Your task to perform on an android device: turn off wifi Image 0: 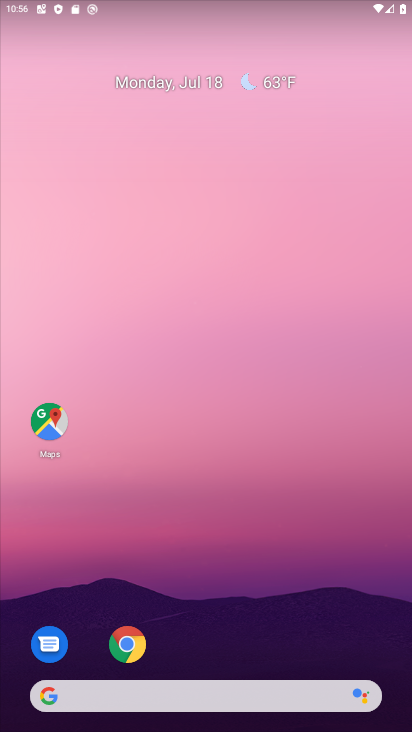
Step 0: drag from (290, 659) to (288, 88)
Your task to perform on an android device: turn off wifi Image 1: 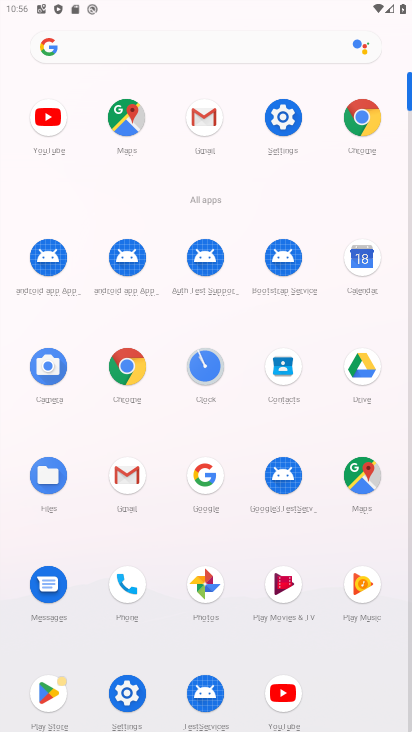
Step 1: click (289, 114)
Your task to perform on an android device: turn off wifi Image 2: 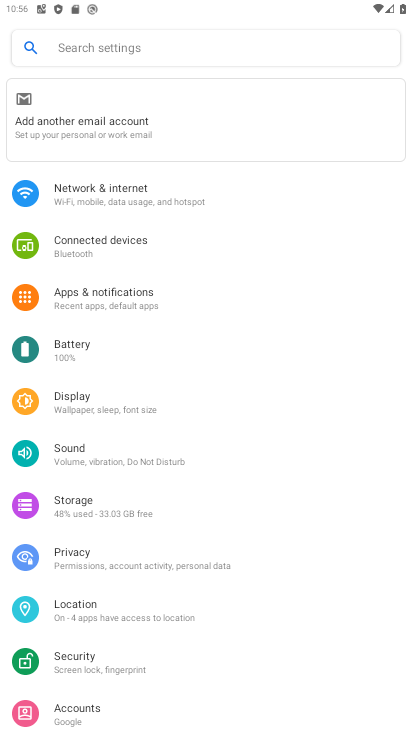
Step 2: click (99, 189)
Your task to perform on an android device: turn off wifi Image 3: 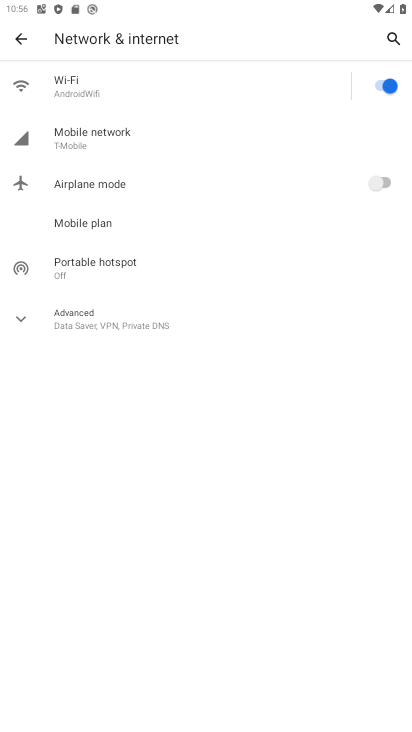
Step 3: click (391, 82)
Your task to perform on an android device: turn off wifi Image 4: 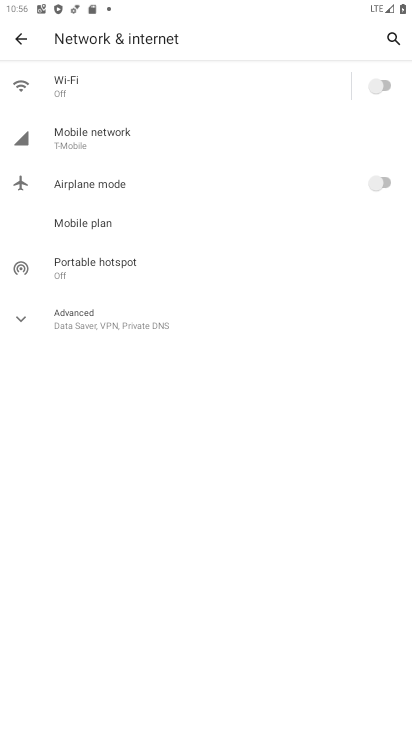
Step 4: task complete